Your task to perform on an android device: open chrome and create a bookmark for the current page Image 0: 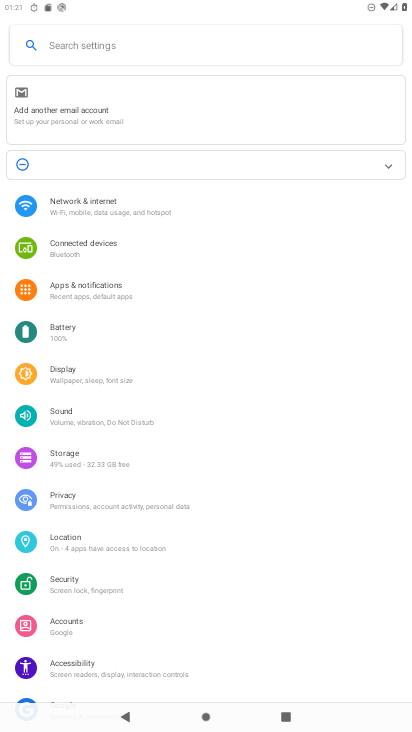
Step 0: drag from (162, 569) to (218, 370)
Your task to perform on an android device: open chrome and create a bookmark for the current page Image 1: 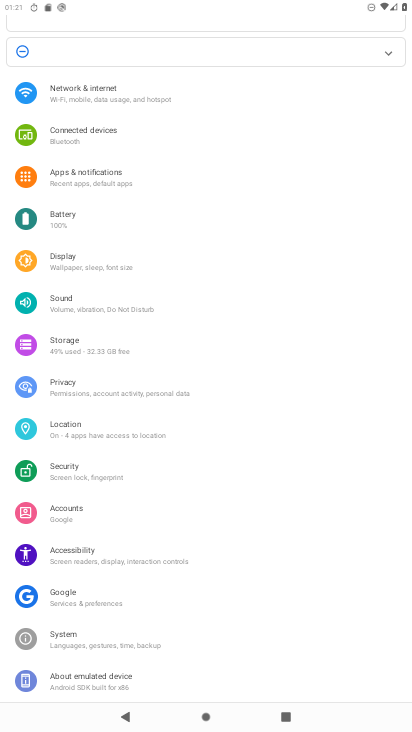
Step 1: drag from (220, 374) to (181, 729)
Your task to perform on an android device: open chrome and create a bookmark for the current page Image 2: 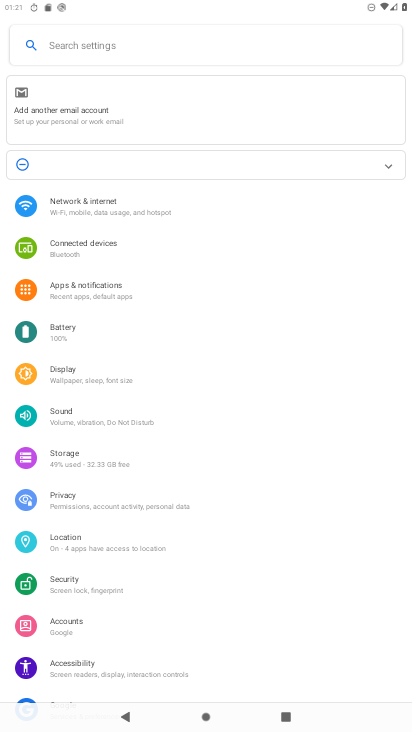
Step 2: press home button
Your task to perform on an android device: open chrome and create a bookmark for the current page Image 3: 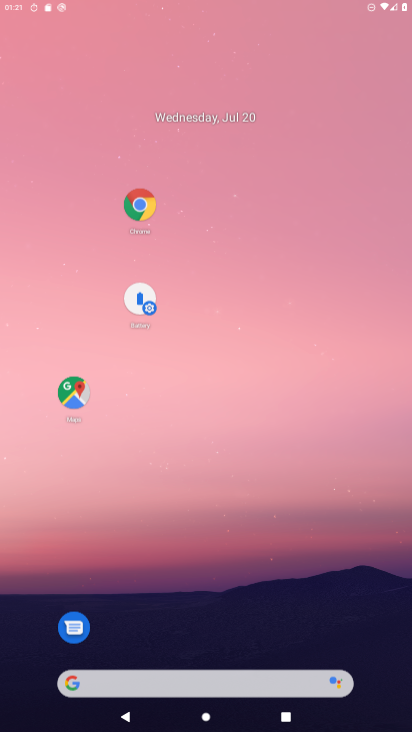
Step 3: drag from (136, 588) to (203, 130)
Your task to perform on an android device: open chrome and create a bookmark for the current page Image 4: 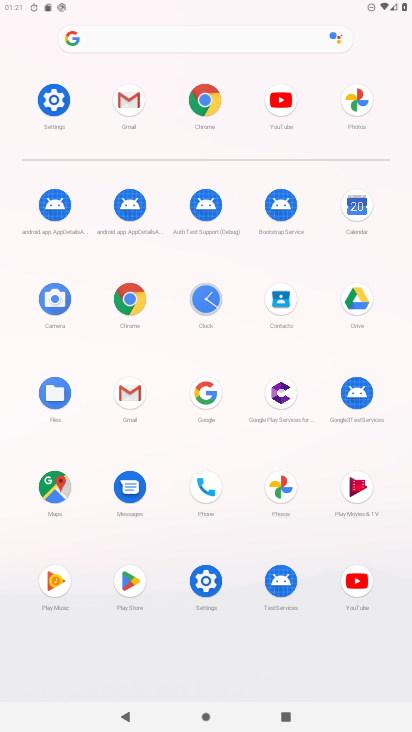
Step 4: click (206, 98)
Your task to perform on an android device: open chrome and create a bookmark for the current page Image 5: 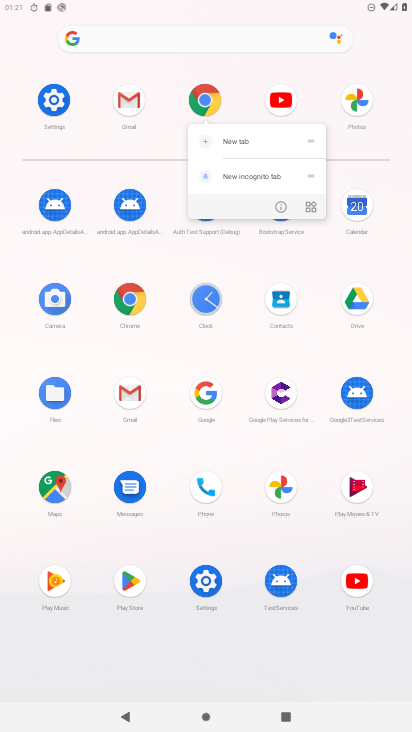
Step 5: click (274, 202)
Your task to perform on an android device: open chrome and create a bookmark for the current page Image 6: 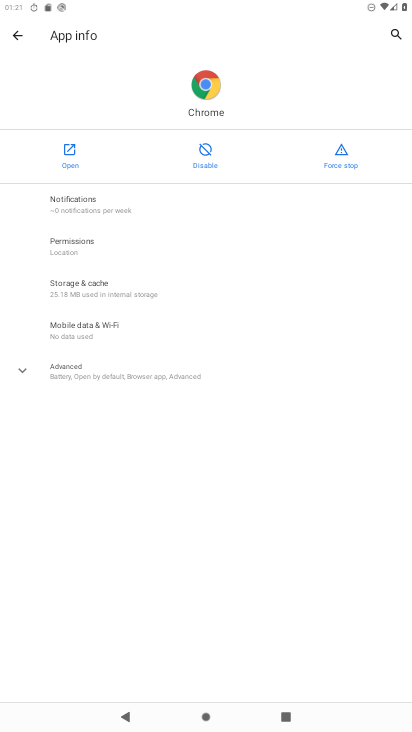
Step 6: click (65, 150)
Your task to perform on an android device: open chrome and create a bookmark for the current page Image 7: 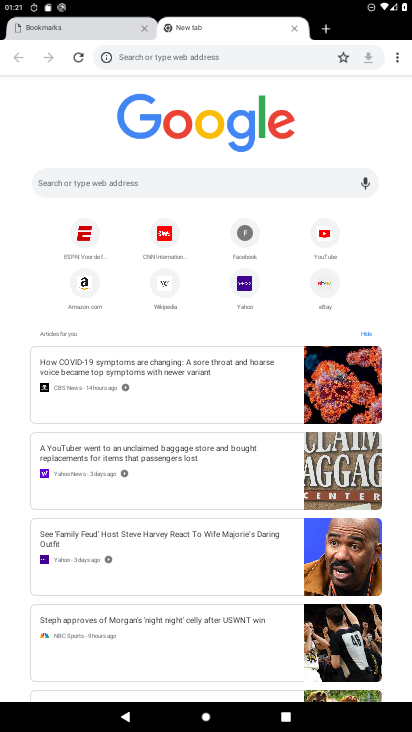
Step 7: drag from (399, 52) to (45, 97)
Your task to perform on an android device: open chrome and create a bookmark for the current page Image 8: 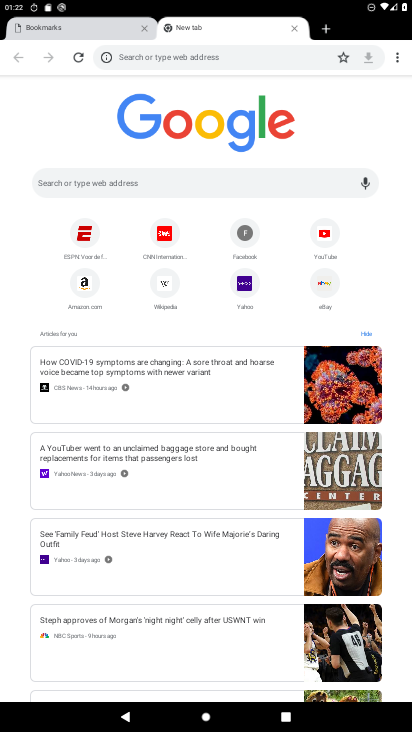
Step 8: click (343, 55)
Your task to perform on an android device: open chrome and create a bookmark for the current page Image 9: 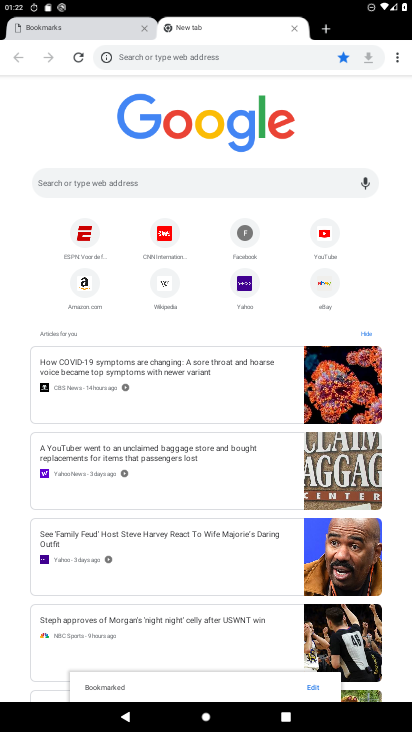
Step 9: task complete